Your task to perform on an android device: Open the calendar and show me this week's events? Image 0: 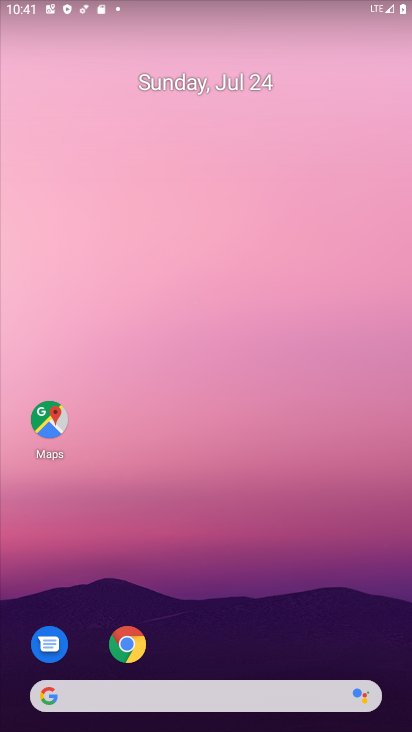
Step 0: drag from (45, 719) to (285, 108)
Your task to perform on an android device: Open the calendar and show me this week's events? Image 1: 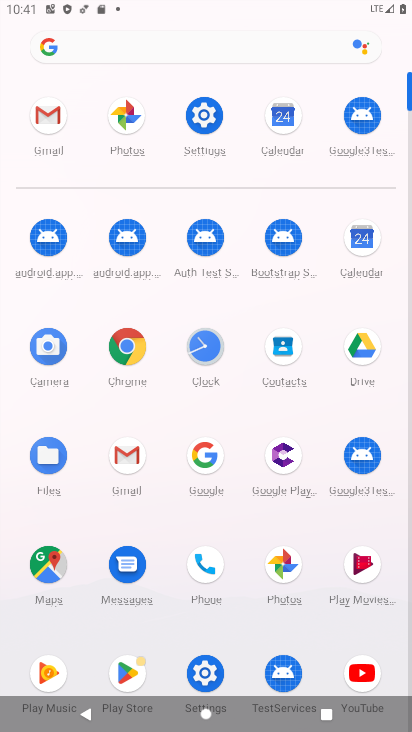
Step 1: click (340, 248)
Your task to perform on an android device: Open the calendar and show me this week's events? Image 2: 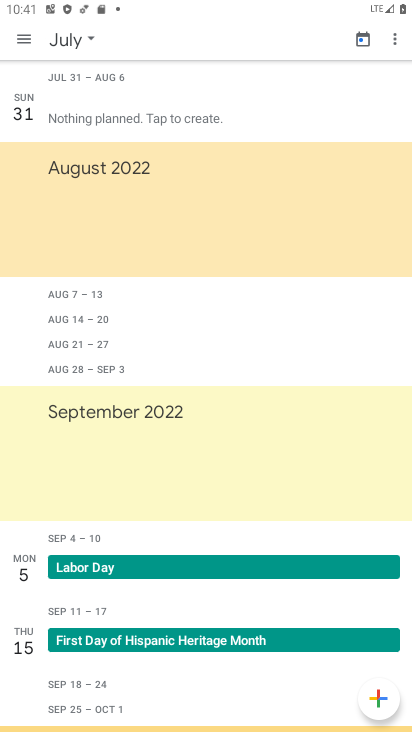
Step 2: click (68, 43)
Your task to perform on an android device: Open the calendar and show me this week's events? Image 3: 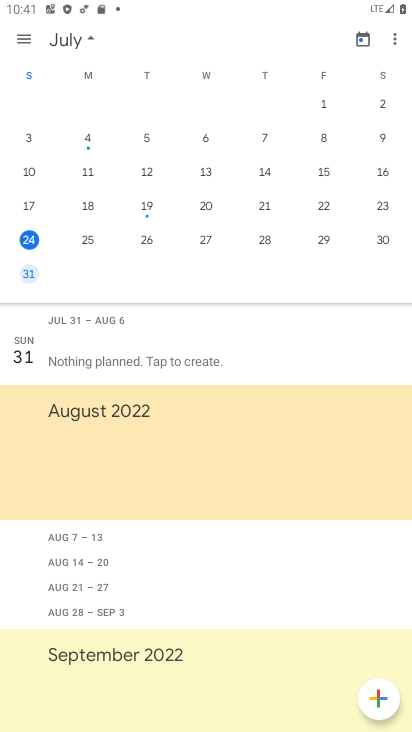
Step 3: click (90, 242)
Your task to perform on an android device: Open the calendar and show me this week's events? Image 4: 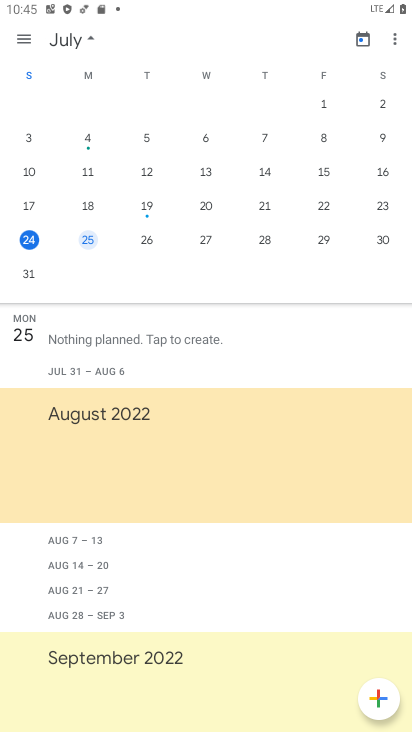
Step 4: task complete